Your task to perform on an android device: Open Chrome and go to the settings page Image 0: 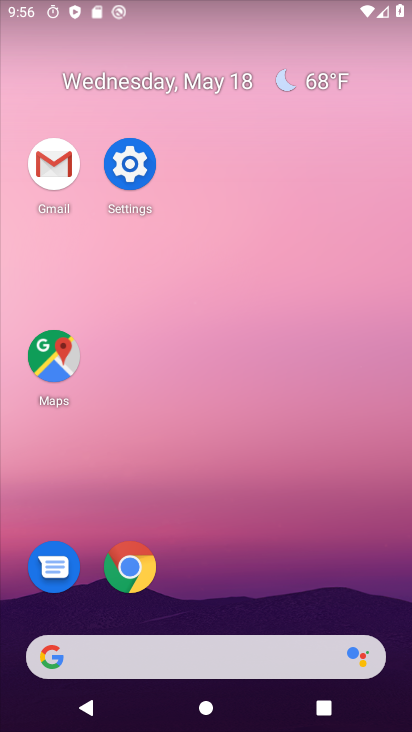
Step 0: click (128, 559)
Your task to perform on an android device: Open Chrome and go to the settings page Image 1: 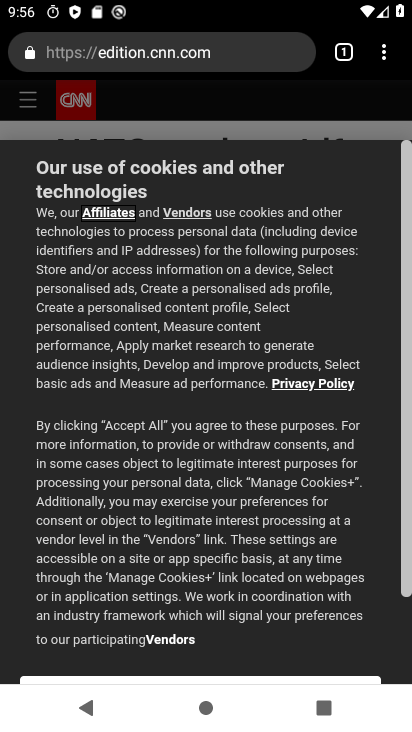
Step 1: click (388, 61)
Your task to perform on an android device: Open Chrome and go to the settings page Image 2: 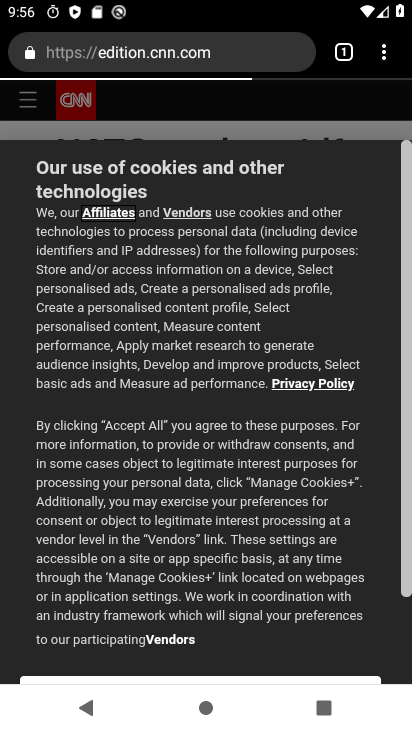
Step 2: click (387, 56)
Your task to perform on an android device: Open Chrome and go to the settings page Image 3: 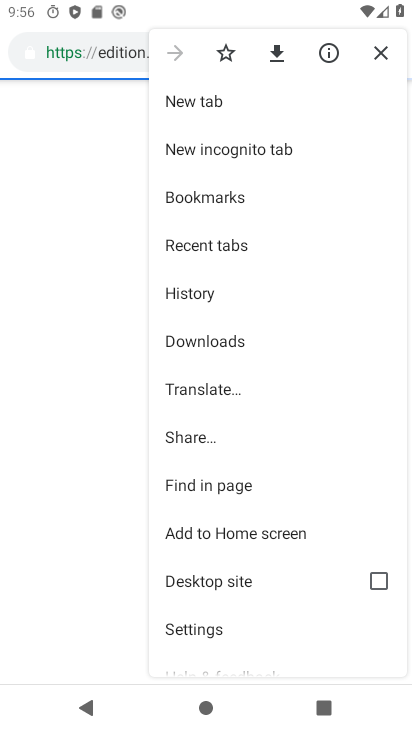
Step 3: click (209, 626)
Your task to perform on an android device: Open Chrome and go to the settings page Image 4: 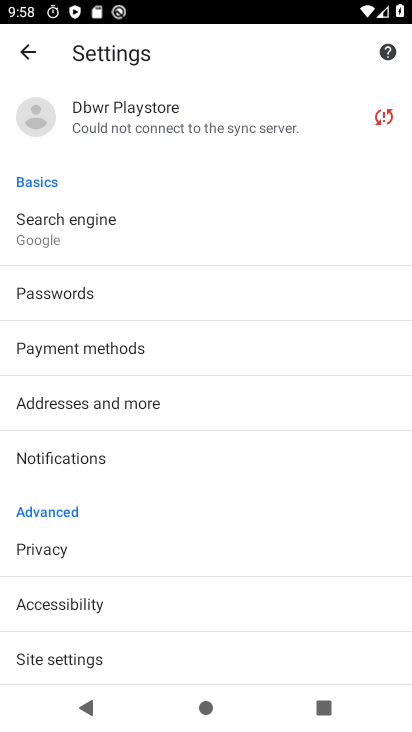
Step 4: task complete